Your task to perform on an android device: Open Google Chrome and click the shortcut for Amazon.com Image 0: 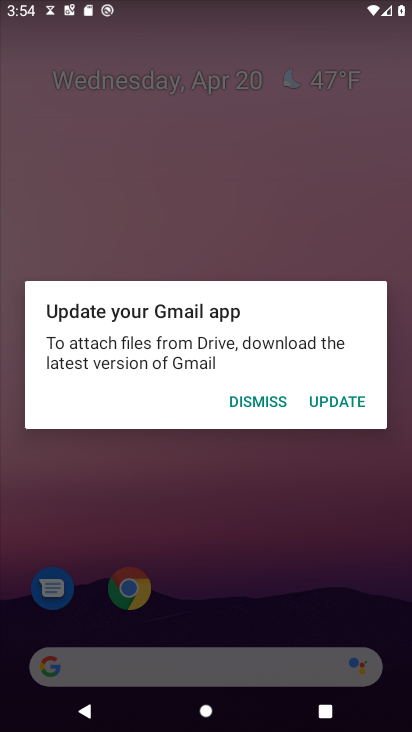
Step 0: press home button
Your task to perform on an android device: Open Google Chrome and click the shortcut for Amazon.com Image 1: 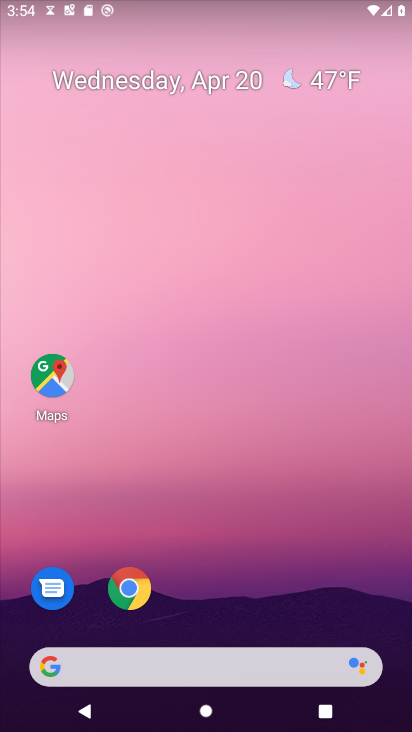
Step 1: click (133, 582)
Your task to perform on an android device: Open Google Chrome and click the shortcut for Amazon.com Image 2: 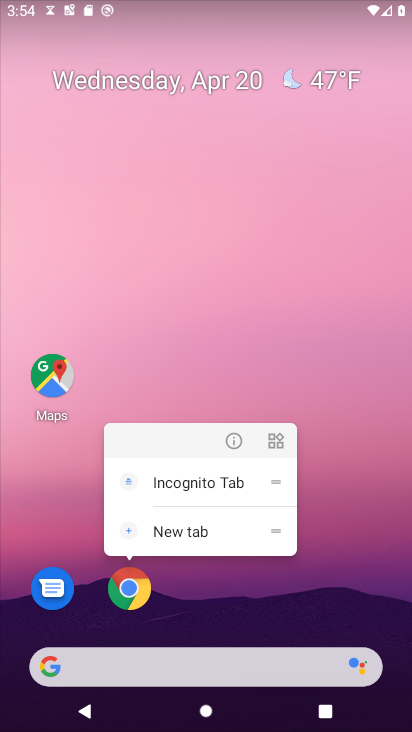
Step 2: click (142, 570)
Your task to perform on an android device: Open Google Chrome and click the shortcut for Amazon.com Image 3: 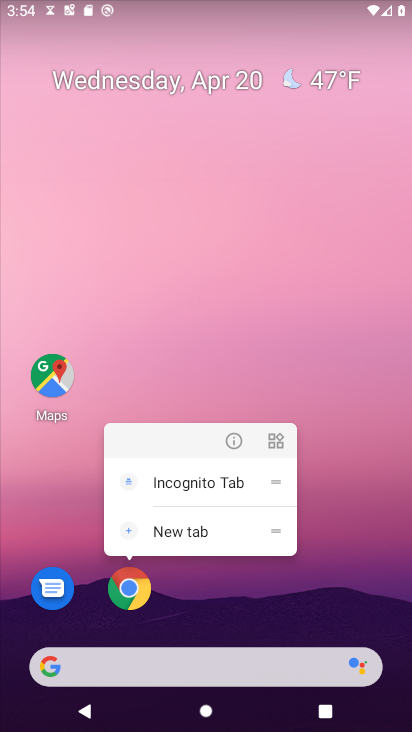
Step 3: click (141, 584)
Your task to perform on an android device: Open Google Chrome and click the shortcut for Amazon.com Image 4: 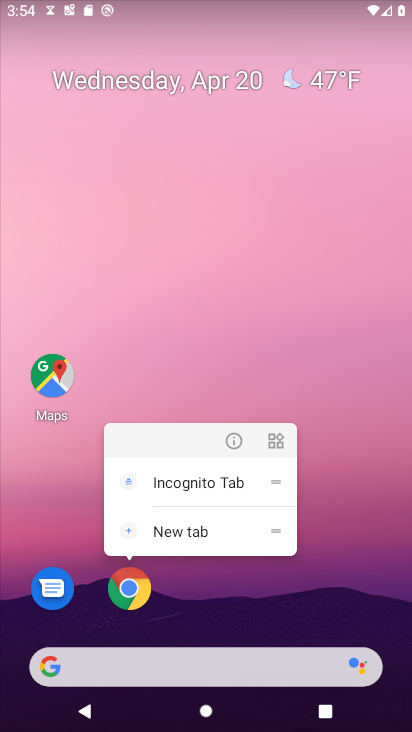
Step 4: click (141, 584)
Your task to perform on an android device: Open Google Chrome and click the shortcut for Amazon.com Image 5: 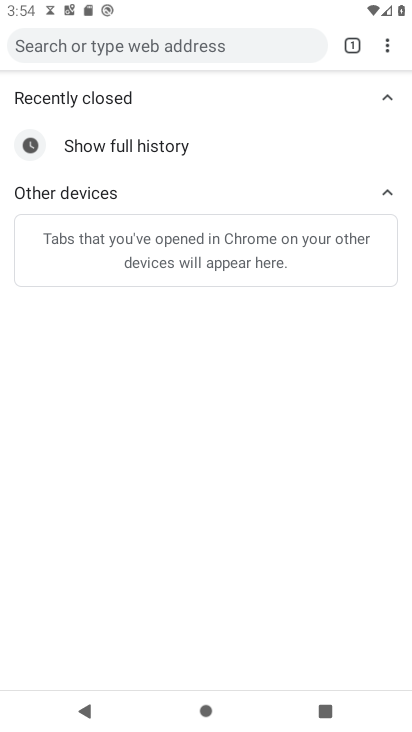
Step 5: click (386, 48)
Your task to perform on an android device: Open Google Chrome and click the shortcut for Amazon.com Image 6: 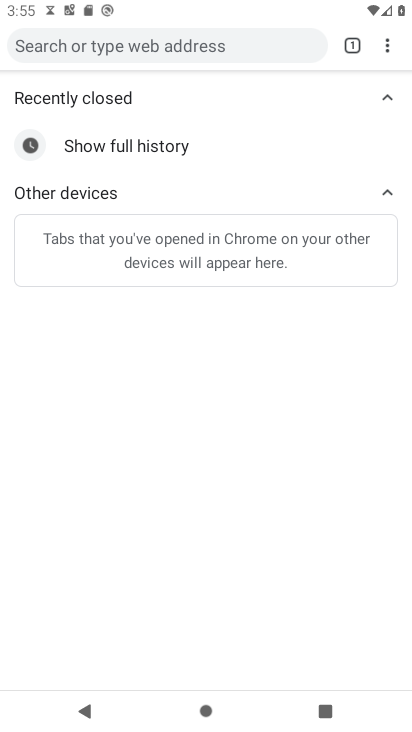
Step 6: click (390, 42)
Your task to perform on an android device: Open Google Chrome and click the shortcut for Amazon.com Image 7: 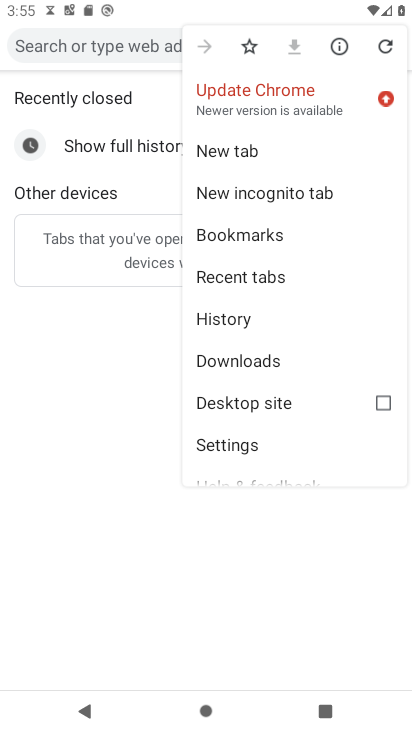
Step 7: click (271, 142)
Your task to perform on an android device: Open Google Chrome and click the shortcut for Amazon.com Image 8: 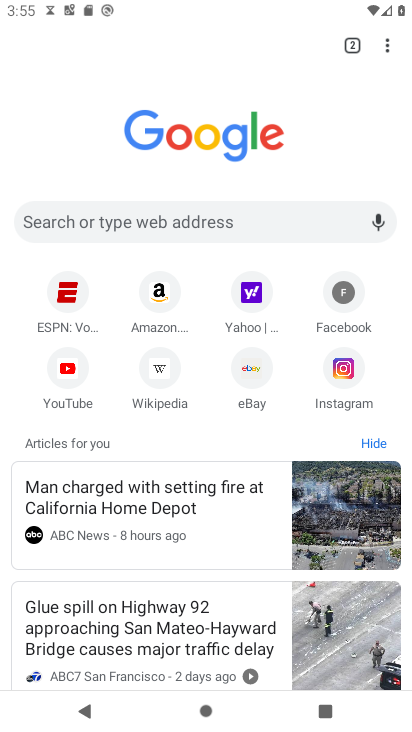
Step 8: click (156, 305)
Your task to perform on an android device: Open Google Chrome and click the shortcut for Amazon.com Image 9: 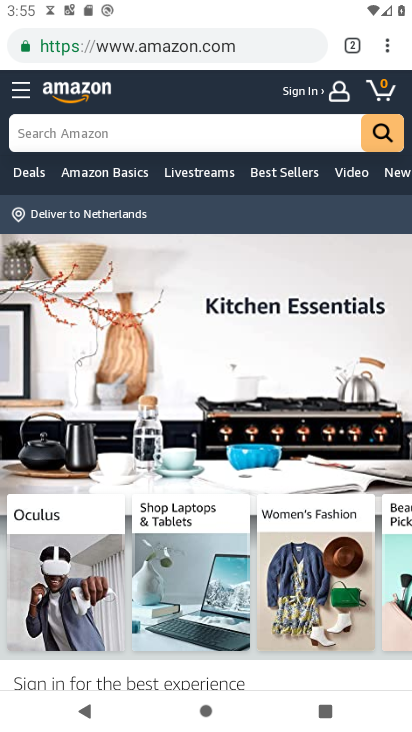
Step 9: task complete